Your task to perform on an android device: toggle data saver in the chrome app Image 0: 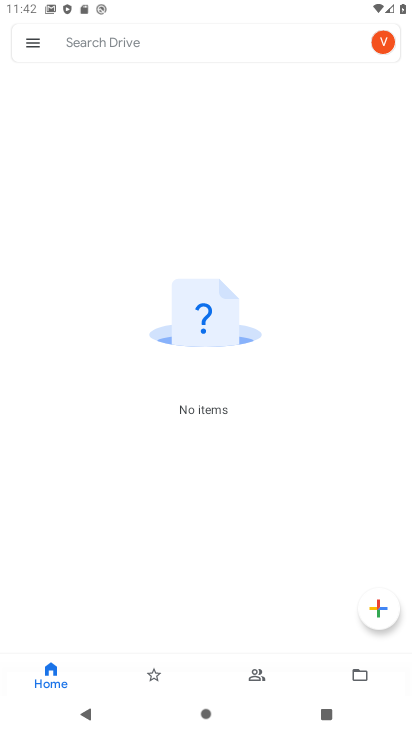
Step 0: press home button
Your task to perform on an android device: toggle data saver in the chrome app Image 1: 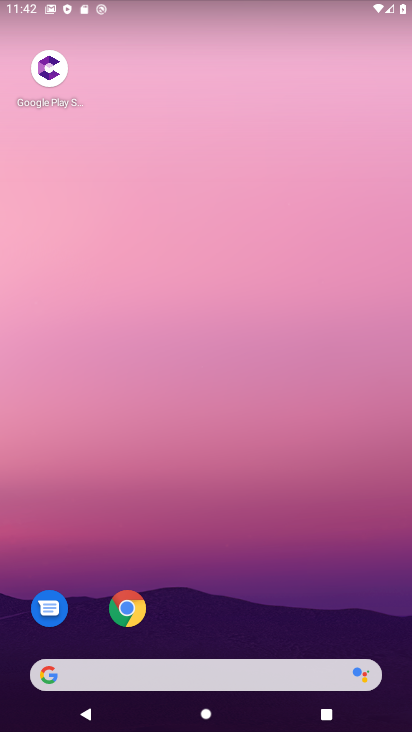
Step 1: drag from (226, 652) to (312, 212)
Your task to perform on an android device: toggle data saver in the chrome app Image 2: 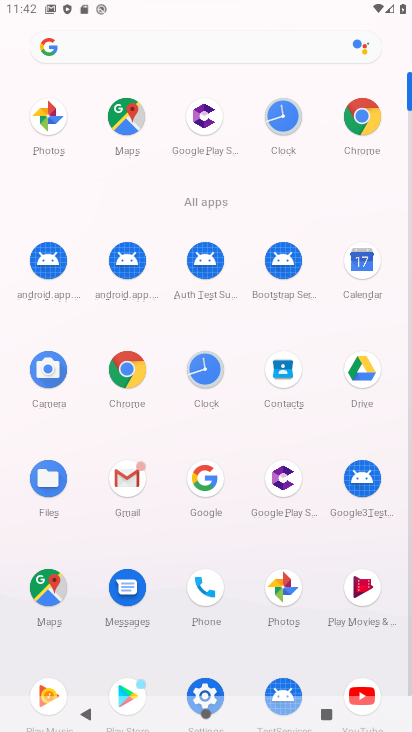
Step 2: click (132, 371)
Your task to perform on an android device: toggle data saver in the chrome app Image 3: 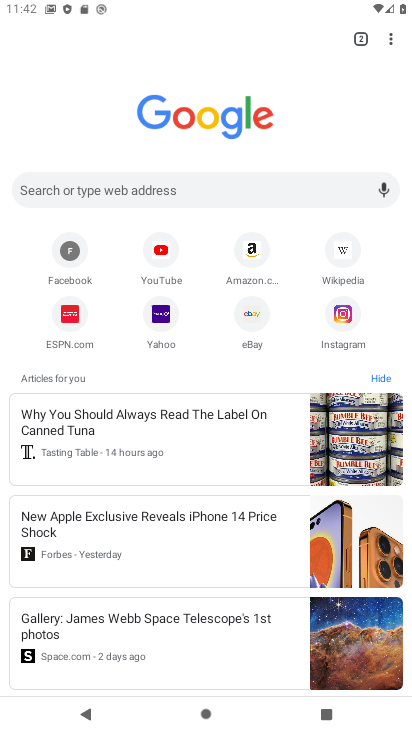
Step 3: drag from (388, 43) to (302, 338)
Your task to perform on an android device: toggle data saver in the chrome app Image 4: 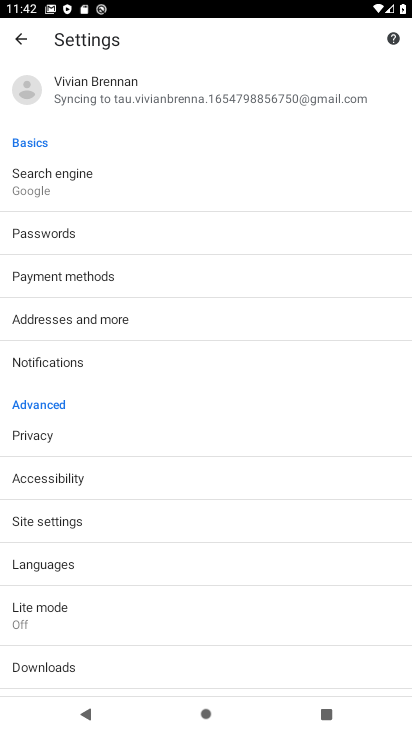
Step 4: click (99, 629)
Your task to perform on an android device: toggle data saver in the chrome app Image 5: 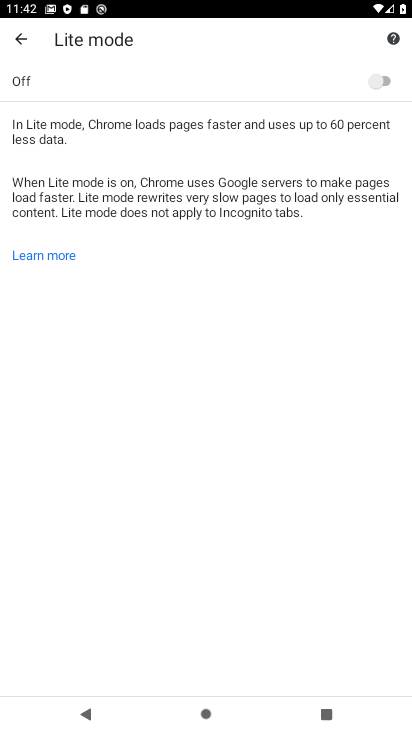
Step 5: click (387, 72)
Your task to perform on an android device: toggle data saver in the chrome app Image 6: 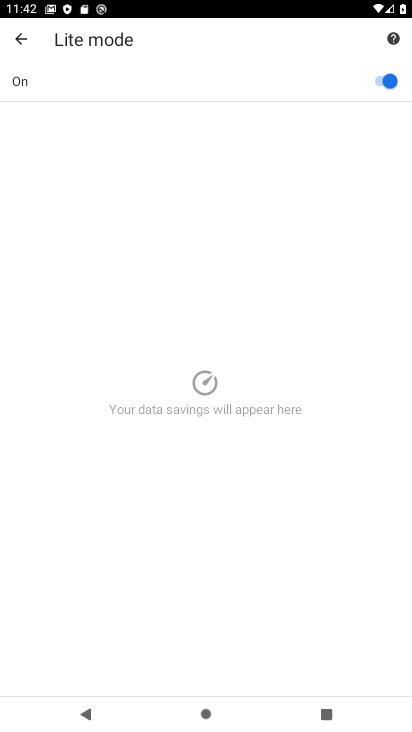
Step 6: task complete